Your task to perform on an android device: Clear the cart on amazon.com. Search for "razer blade" on amazon.com, select the first entry, and add it to the cart. Image 0: 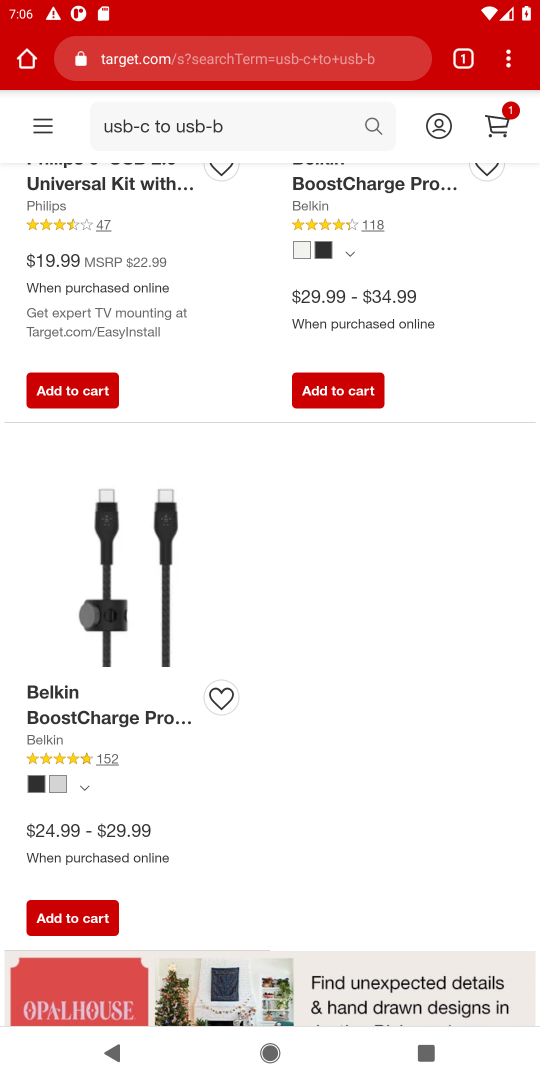
Step 0: click (169, 60)
Your task to perform on an android device: Clear the cart on amazon.com. Search for "razer blade" on amazon.com, select the first entry, and add it to the cart. Image 1: 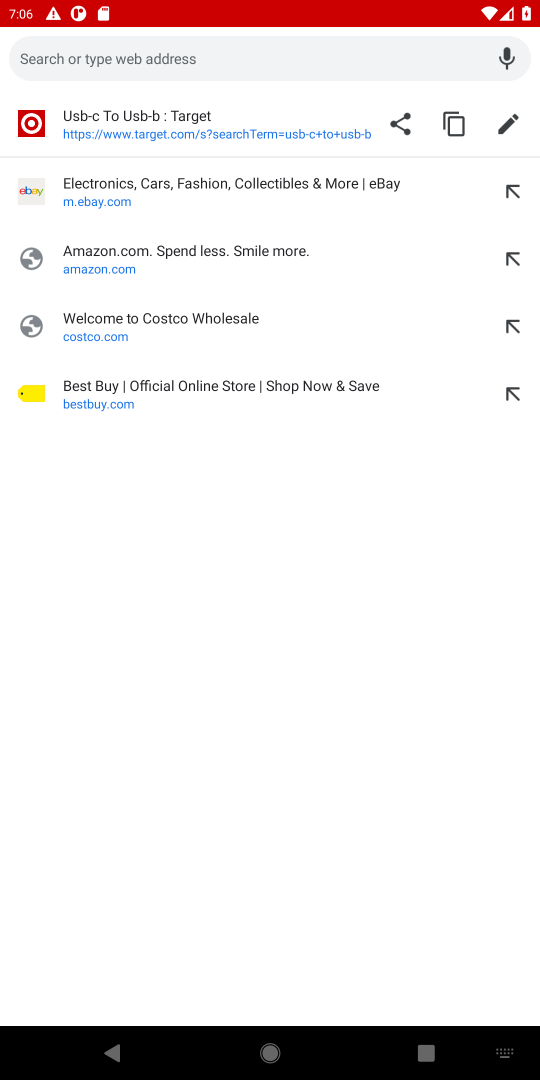
Step 1: click (79, 265)
Your task to perform on an android device: Clear the cart on amazon.com. Search for "razer blade" on amazon.com, select the first entry, and add it to the cart. Image 2: 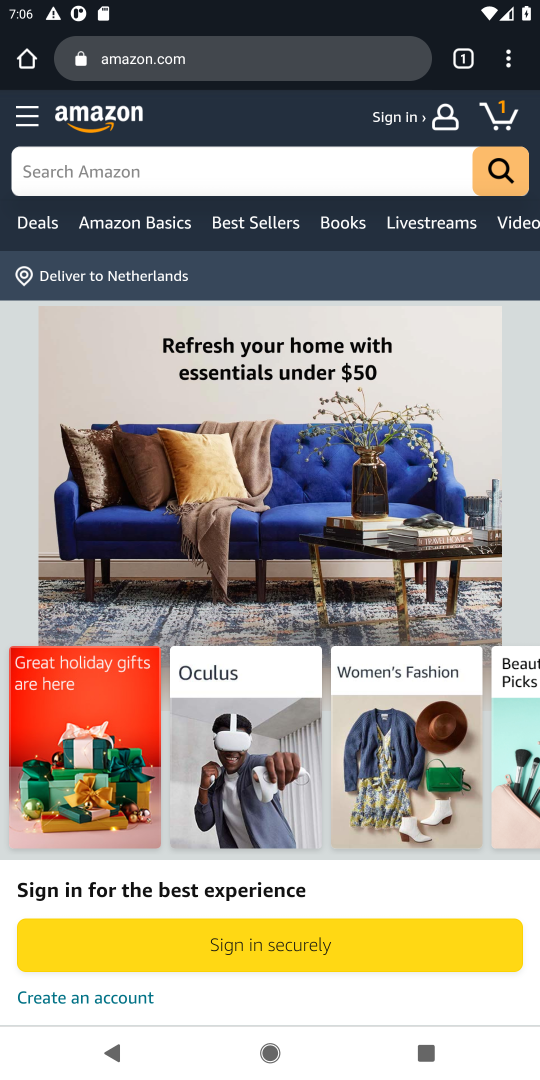
Step 2: click (502, 104)
Your task to perform on an android device: Clear the cart on amazon.com. Search for "razer blade" on amazon.com, select the first entry, and add it to the cart. Image 3: 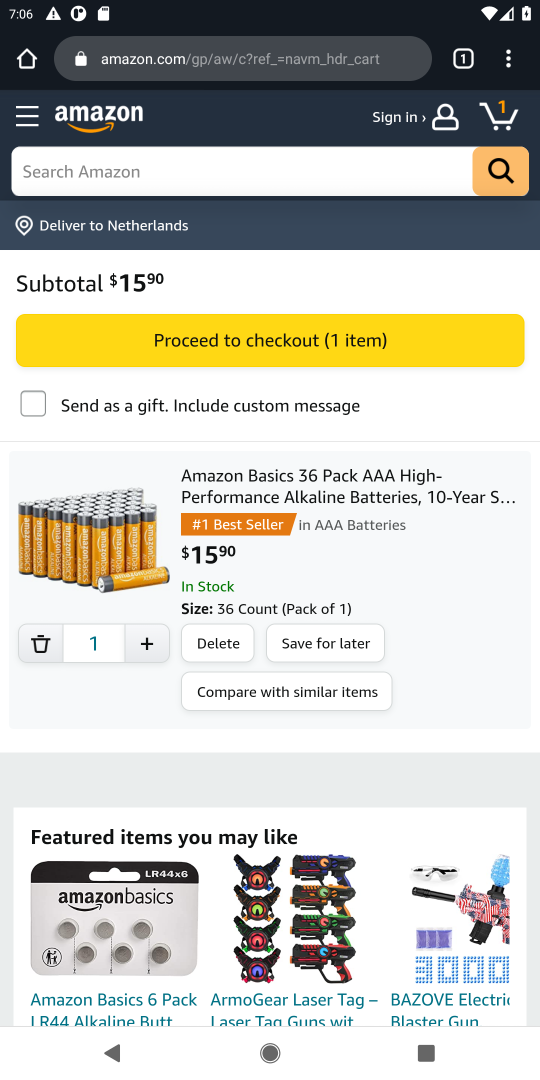
Step 3: click (217, 644)
Your task to perform on an android device: Clear the cart on amazon.com. Search for "razer blade" on amazon.com, select the first entry, and add it to the cart. Image 4: 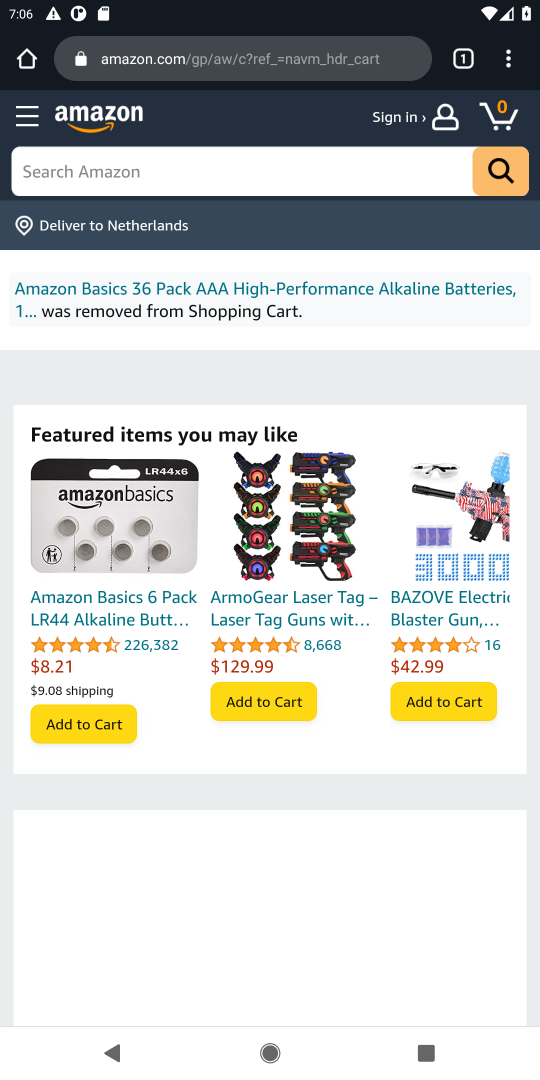
Step 4: click (84, 165)
Your task to perform on an android device: Clear the cart on amazon.com. Search for "razer blade" on amazon.com, select the first entry, and add it to the cart. Image 5: 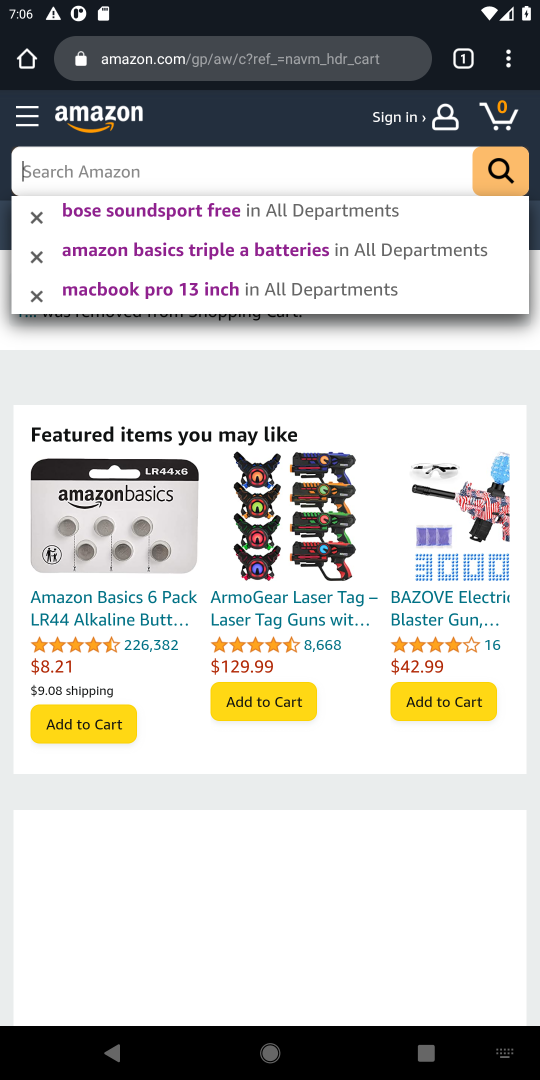
Step 5: type "razer blade"
Your task to perform on an android device: Clear the cart on amazon.com. Search for "razer blade" on amazon.com, select the first entry, and add it to the cart. Image 6: 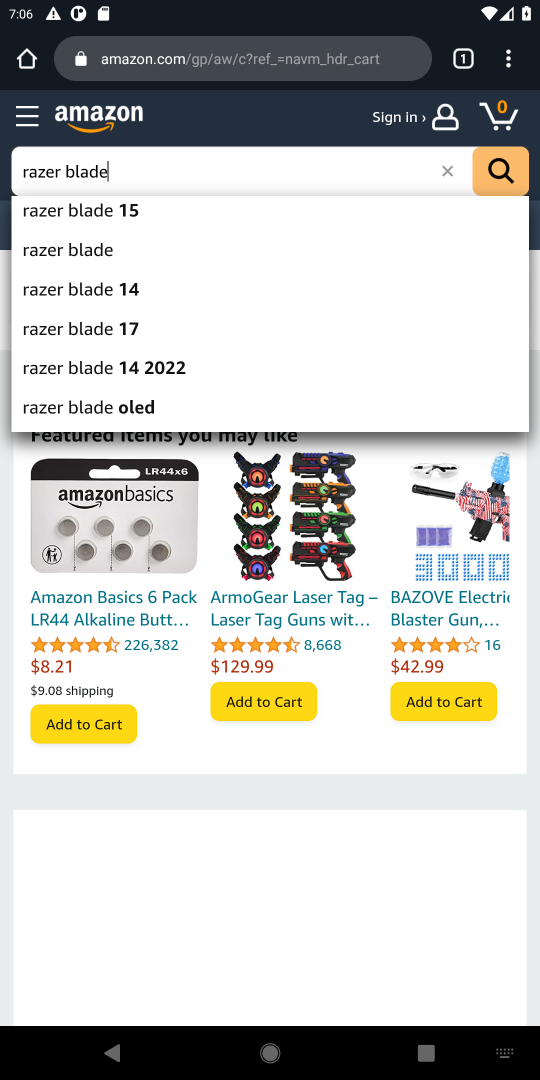
Step 6: click (80, 207)
Your task to perform on an android device: Clear the cart on amazon.com. Search for "razer blade" on amazon.com, select the first entry, and add it to the cart. Image 7: 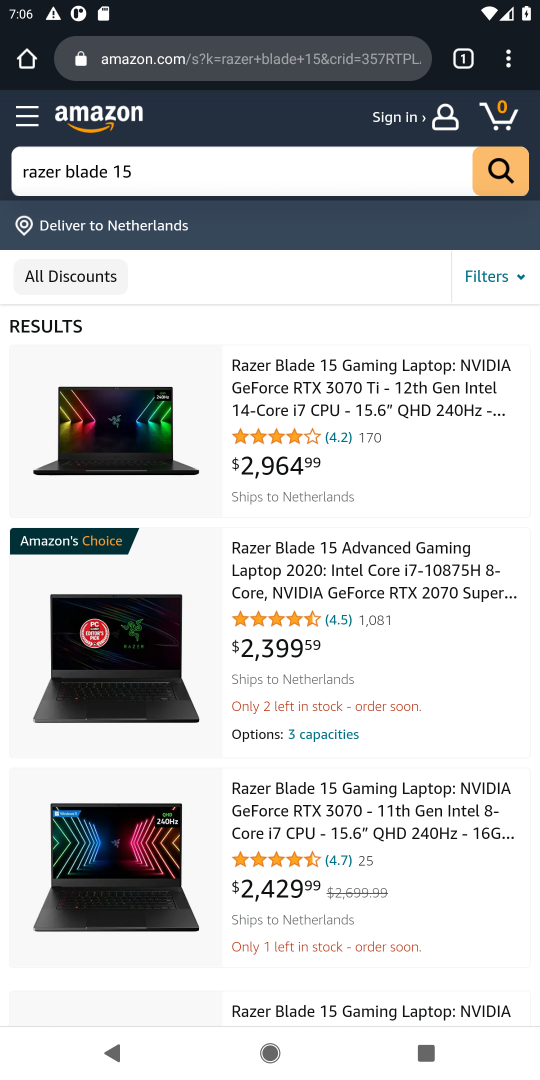
Step 7: click (315, 382)
Your task to perform on an android device: Clear the cart on amazon.com. Search for "razer blade" on amazon.com, select the first entry, and add it to the cart. Image 8: 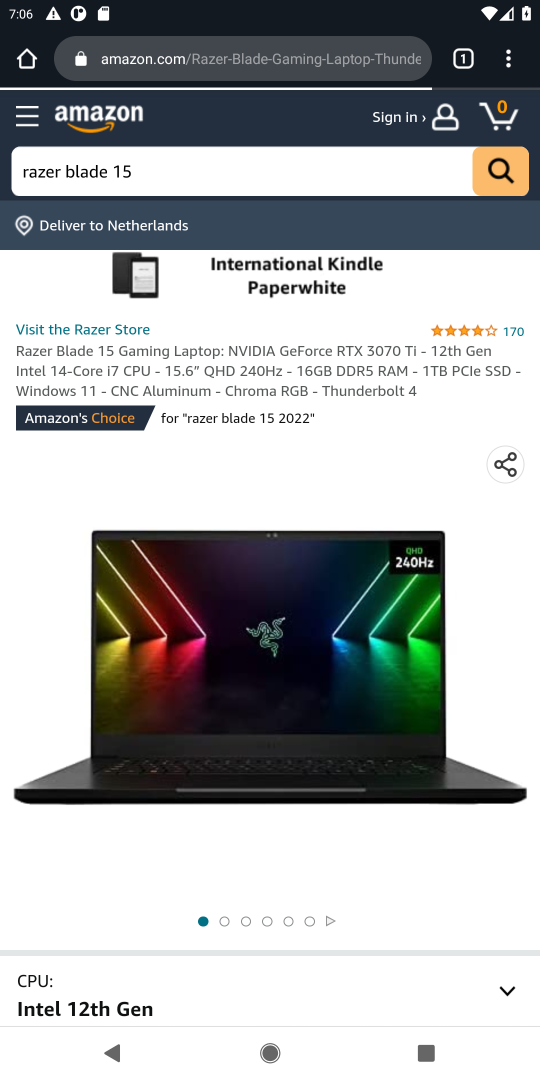
Step 8: drag from (274, 859) to (250, 268)
Your task to perform on an android device: Clear the cart on amazon.com. Search for "razer blade" on amazon.com, select the first entry, and add it to the cart. Image 9: 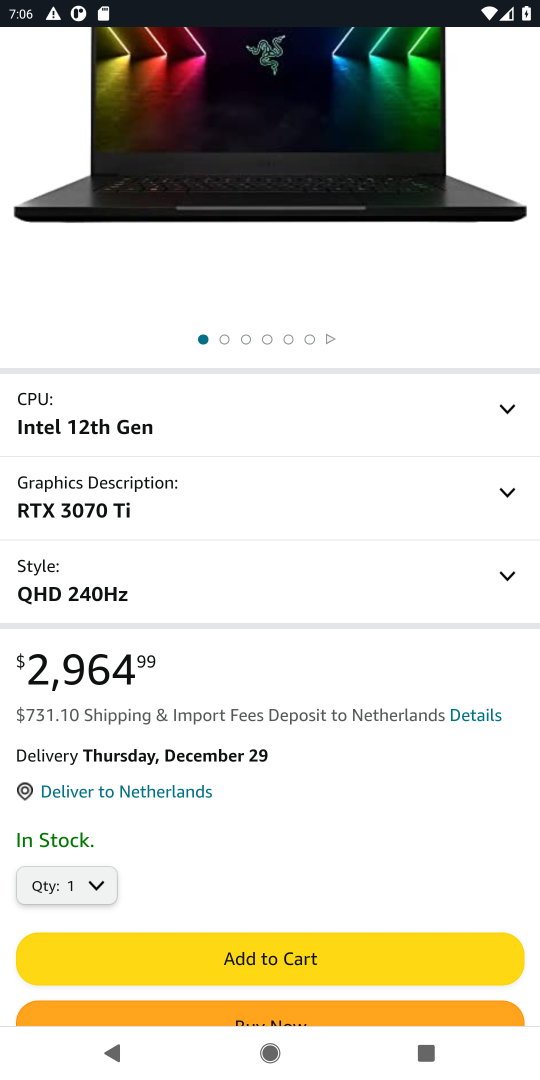
Step 9: click (276, 952)
Your task to perform on an android device: Clear the cart on amazon.com. Search for "razer blade" on amazon.com, select the first entry, and add it to the cart. Image 10: 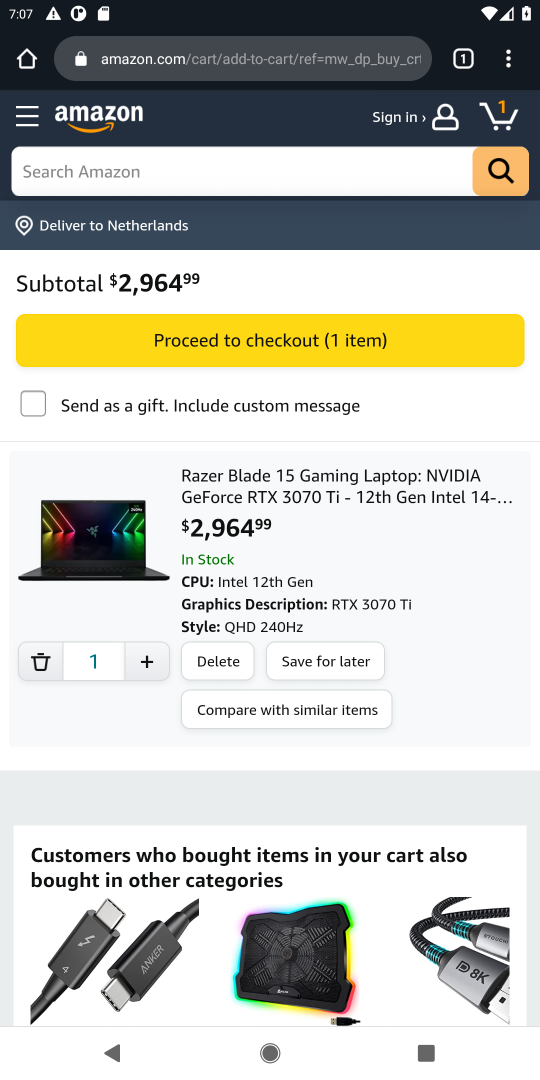
Step 10: task complete